Your task to perform on an android device: clear history in the chrome app Image 0: 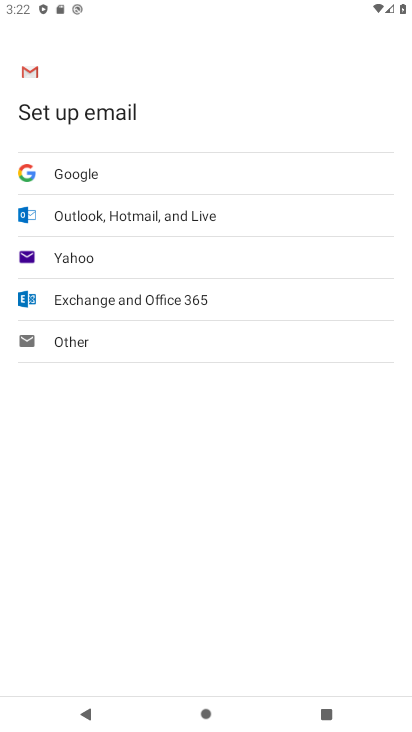
Step 0: press home button
Your task to perform on an android device: clear history in the chrome app Image 1: 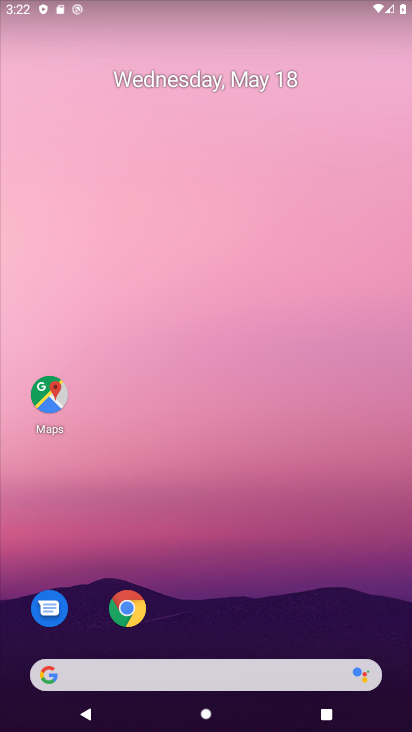
Step 1: click (132, 605)
Your task to perform on an android device: clear history in the chrome app Image 2: 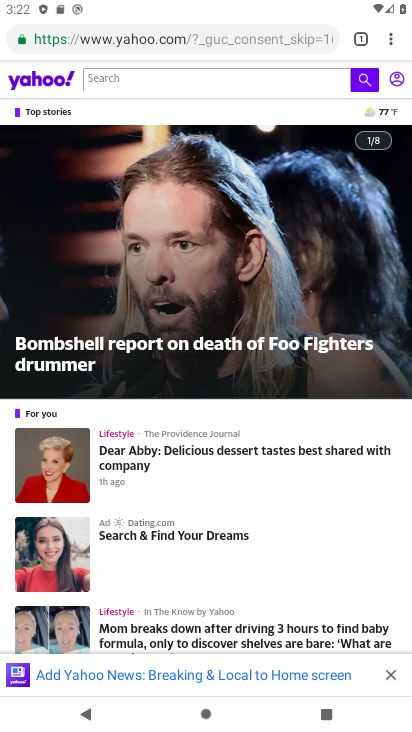
Step 2: click (396, 34)
Your task to perform on an android device: clear history in the chrome app Image 3: 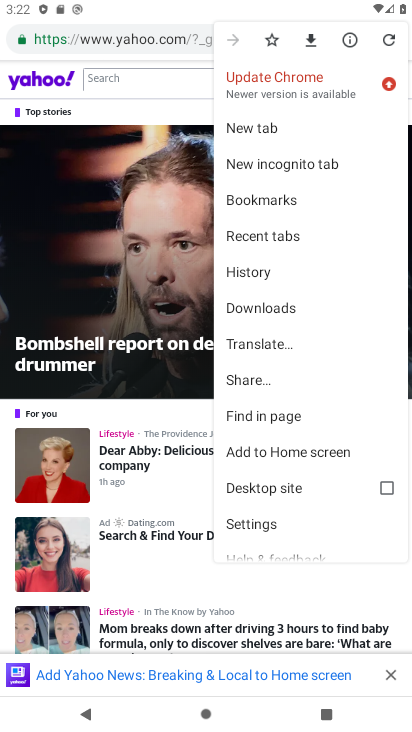
Step 3: click (239, 265)
Your task to perform on an android device: clear history in the chrome app Image 4: 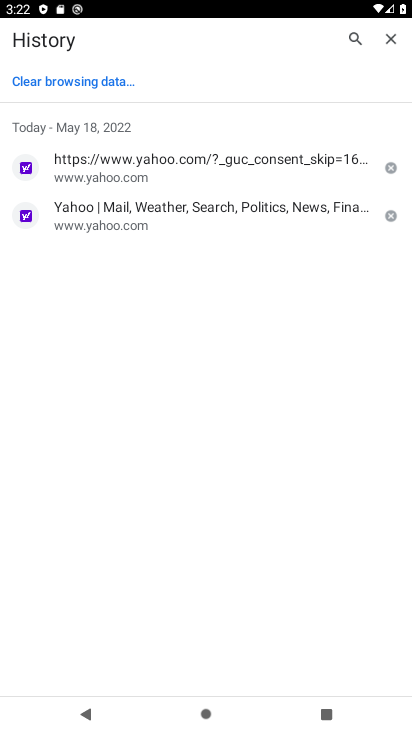
Step 4: click (77, 80)
Your task to perform on an android device: clear history in the chrome app Image 5: 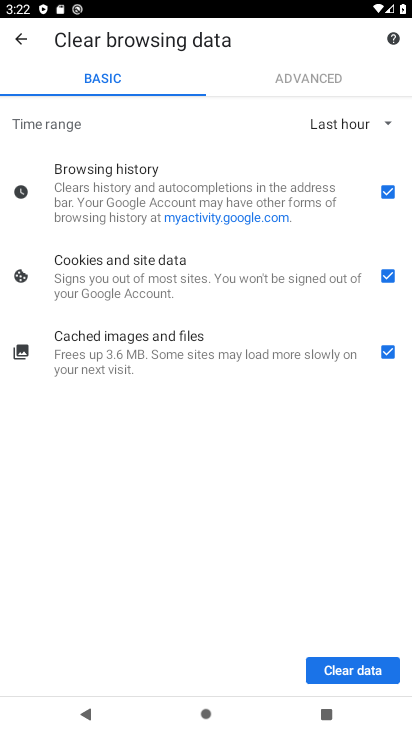
Step 5: click (384, 273)
Your task to perform on an android device: clear history in the chrome app Image 6: 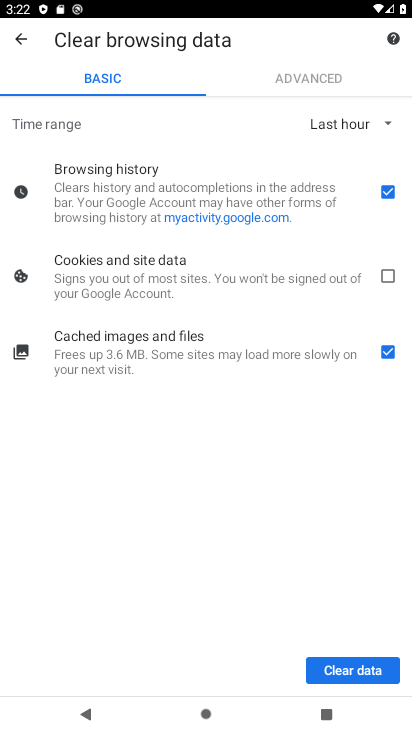
Step 6: click (390, 354)
Your task to perform on an android device: clear history in the chrome app Image 7: 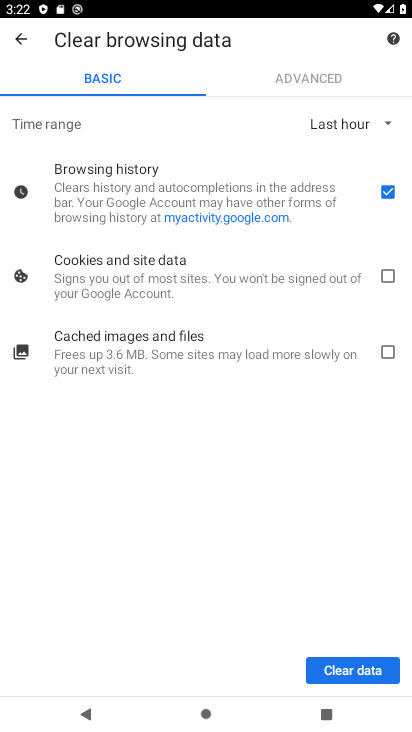
Step 7: click (326, 653)
Your task to perform on an android device: clear history in the chrome app Image 8: 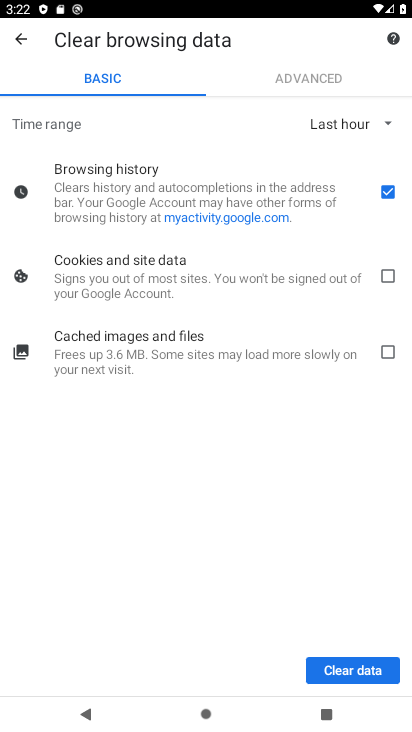
Step 8: click (336, 668)
Your task to perform on an android device: clear history in the chrome app Image 9: 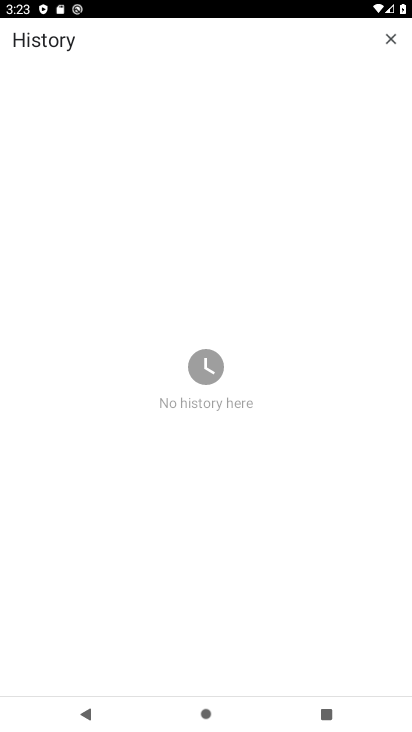
Step 9: task complete